Your task to perform on an android device: turn off priority inbox in the gmail app Image 0: 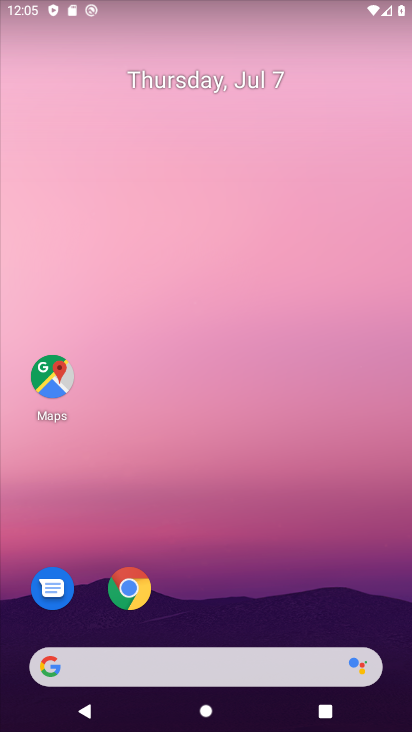
Step 0: drag from (227, 606) to (239, 119)
Your task to perform on an android device: turn off priority inbox in the gmail app Image 1: 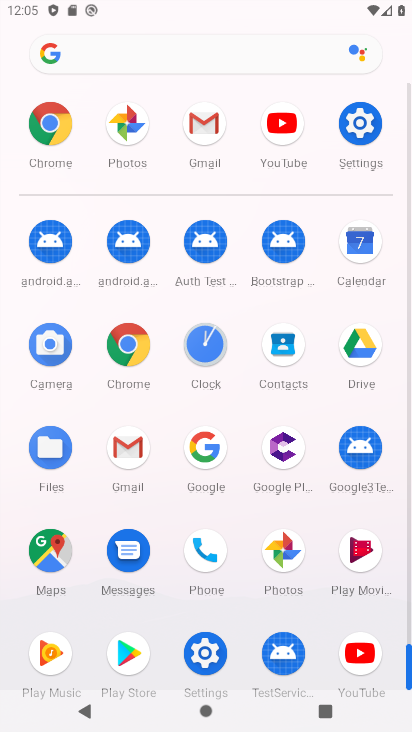
Step 1: click (130, 459)
Your task to perform on an android device: turn off priority inbox in the gmail app Image 2: 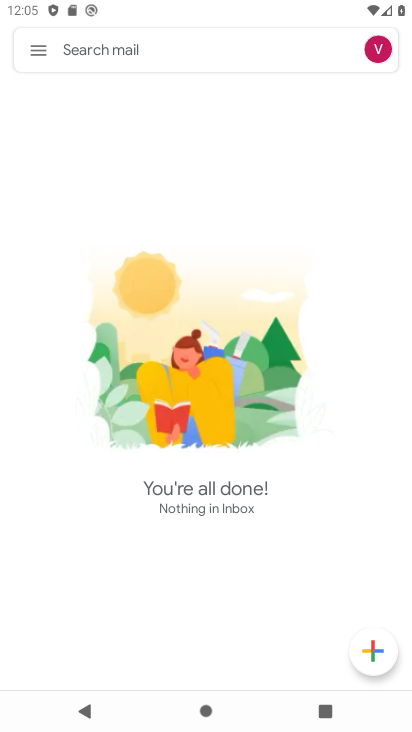
Step 2: drag from (143, 501) to (157, 324)
Your task to perform on an android device: turn off priority inbox in the gmail app Image 3: 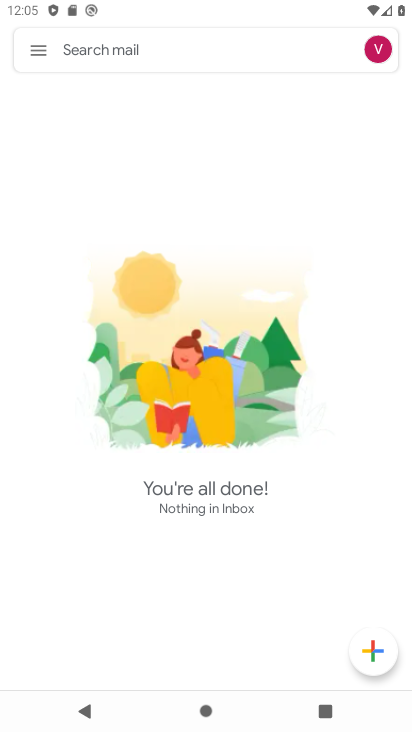
Step 3: click (38, 46)
Your task to perform on an android device: turn off priority inbox in the gmail app Image 4: 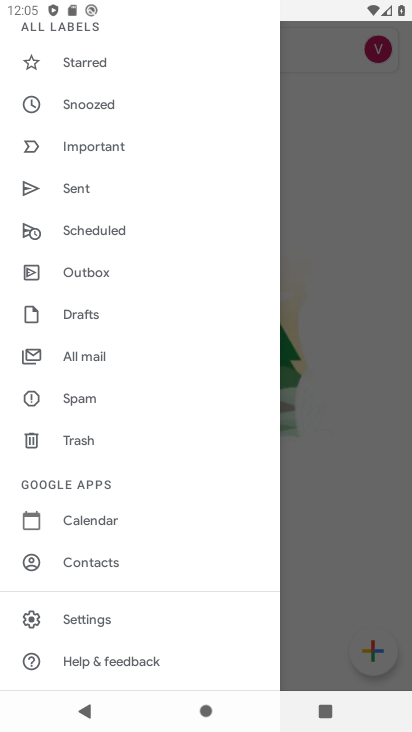
Step 4: click (101, 620)
Your task to perform on an android device: turn off priority inbox in the gmail app Image 5: 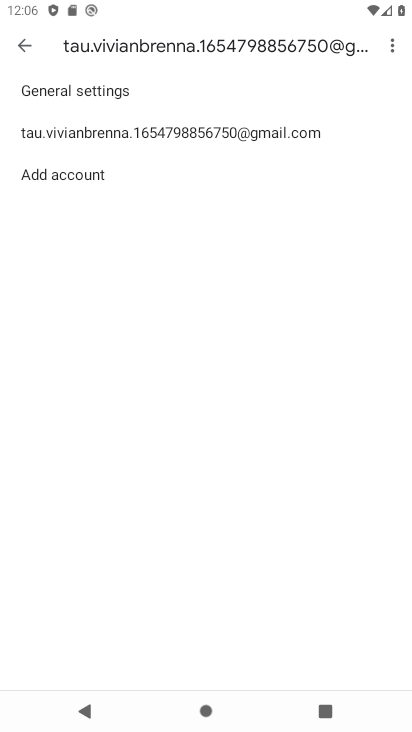
Step 5: click (205, 123)
Your task to perform on an android device: turn off priority inbox in the gmail app Image 6: 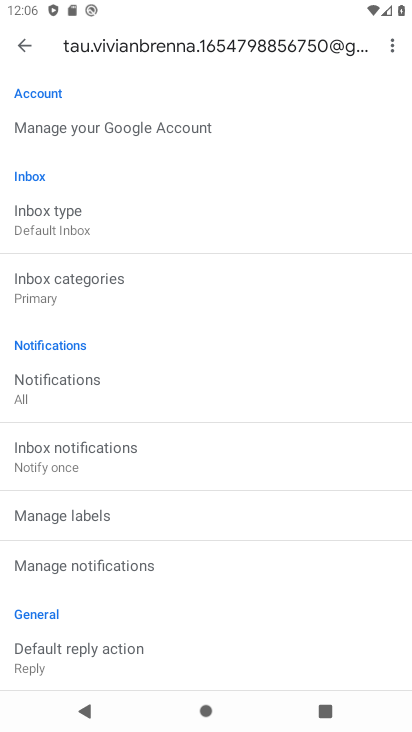
Step 6: drag from (218, 541) to (340, 79)
Your task to perform on an android device: turn off priority inbox in the gmail app Image 7: 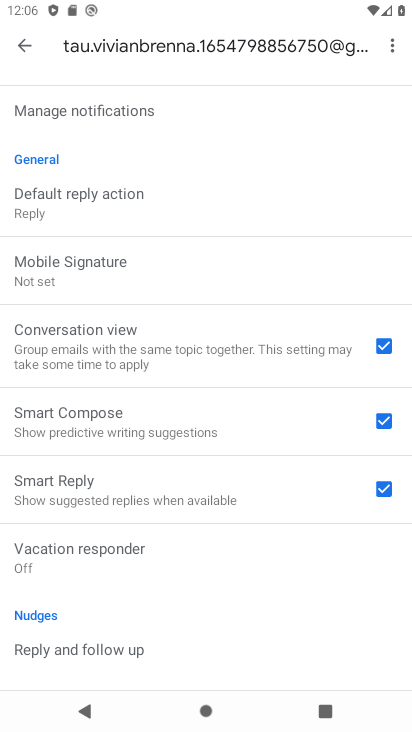
Step 7: drag from (141, 249) to (300, 731)
Your task to perform on an android device: turn off priority inbox in the gmail app Image 8: 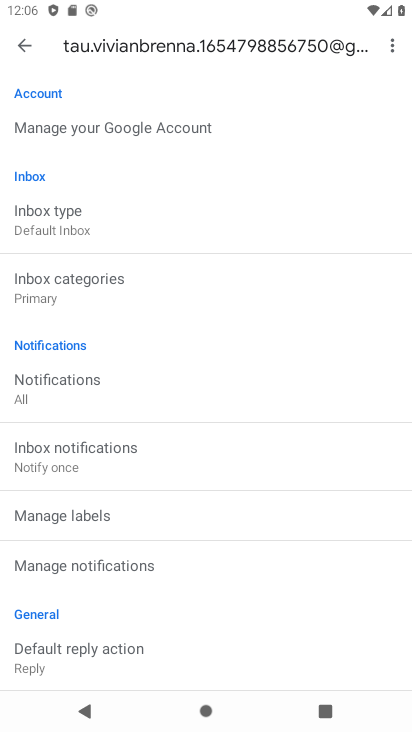
Step 8: click (64, 224)
Your task to perform on an android device: turn off priority inbox in the gmail app Image 9: 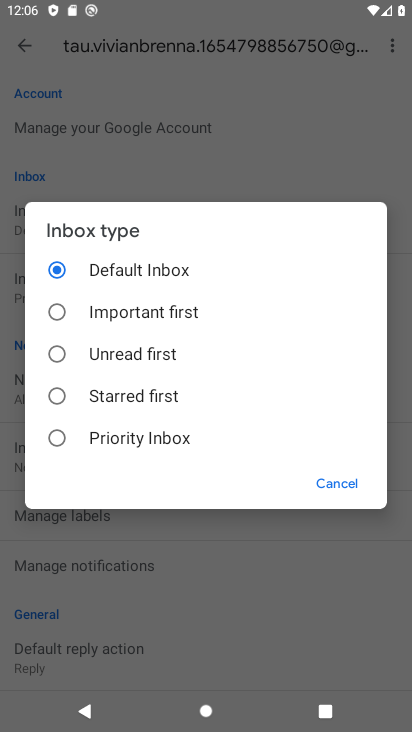
Step 9: click (109, 432)
Your task to perform on an android device: turn off priority inbox in the gmail app Image 10: 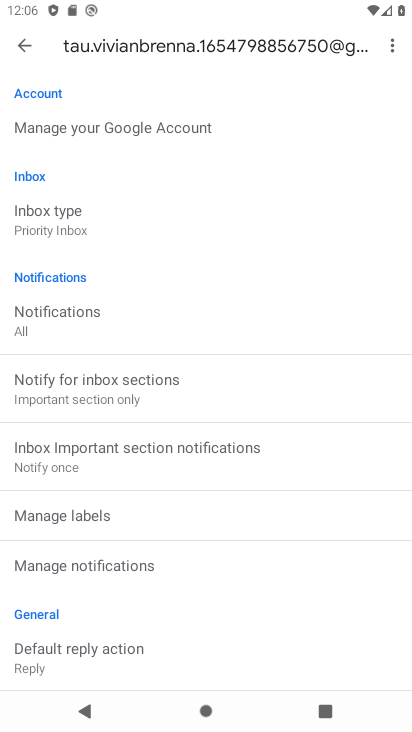
Step 10: click (93, 217)
Your task to perform on an android device: turn off priority inbox in the gmail app Image 11: 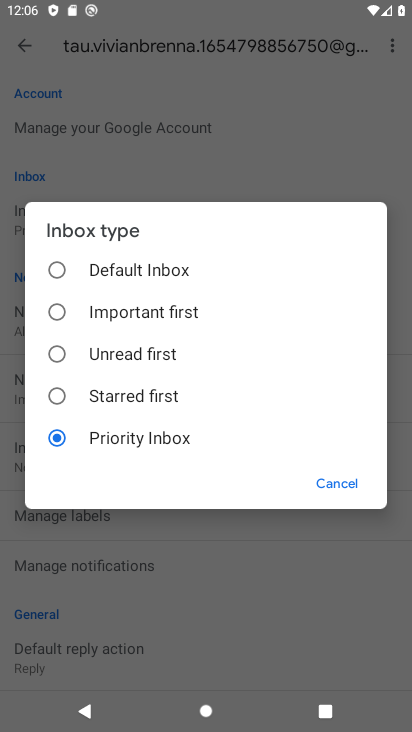
Step 11: click (163, 273)
Your task to perform on an android device: turn off priority inbox in the gmail app Image 12: 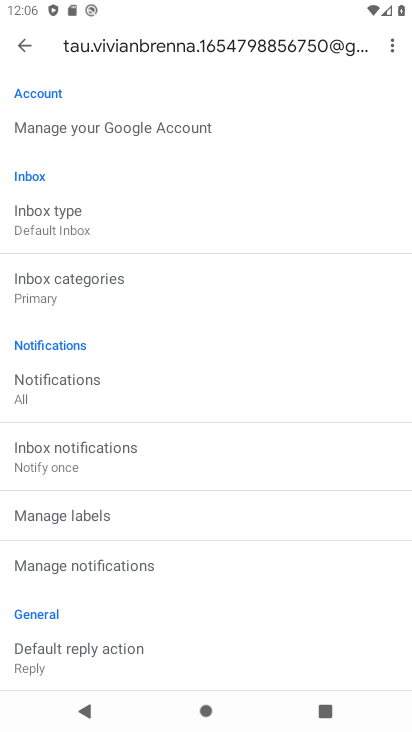
Step 12: task complete